Your task to perform on an android device: toggle pop-ups in chrome Image 0: 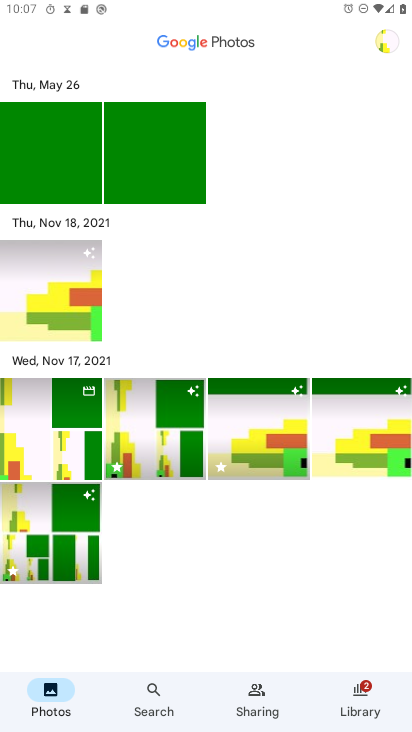
Step 0: press home button
Your task to perform on an android device: toggle pop-ups in chrome Image 1: 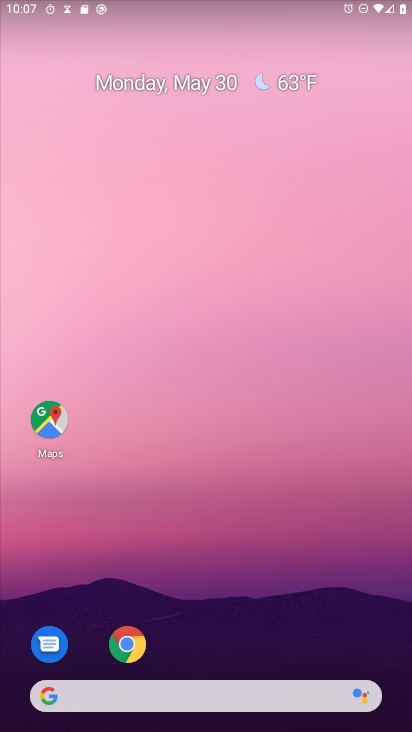
Step 1: click (127, 640)
Your task to perform on an android device: toggle pop-ups in chrome Image 2: 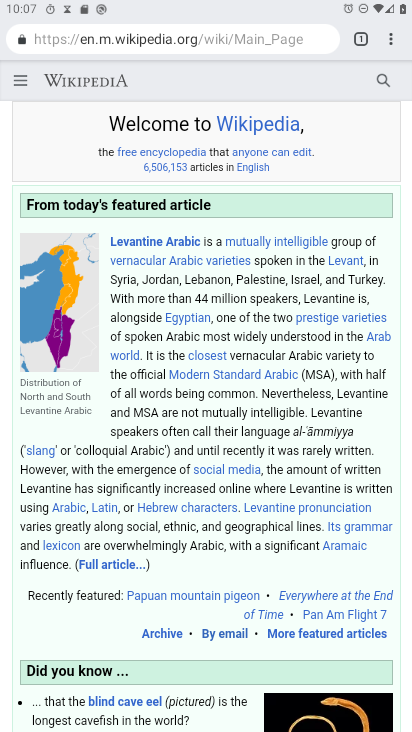
Step 2: click (381, 40)
Your task to perform on an android device: toggle pop-ups in chrome Image 3: 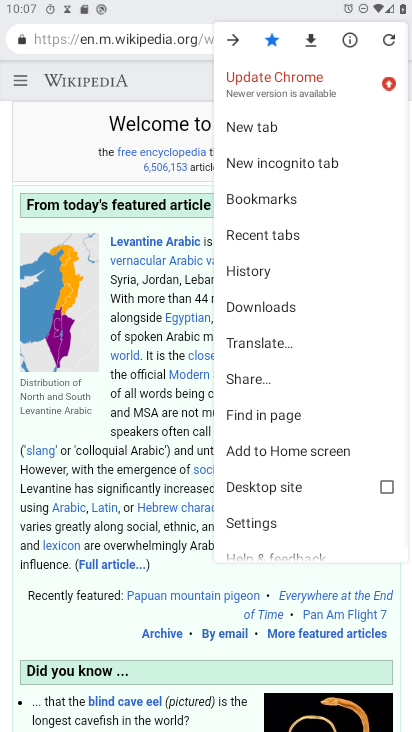
Step 3: click (277, 517)
Your task to perform on an android device: toggle pop-ups in chrome Image 4: 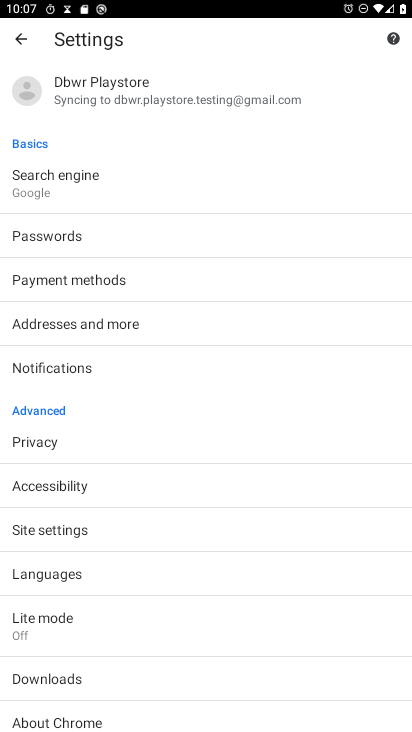
Step 4: click (89, 532)
Your task to perform on an android device: toggle pop-ups in chrome Image 5: 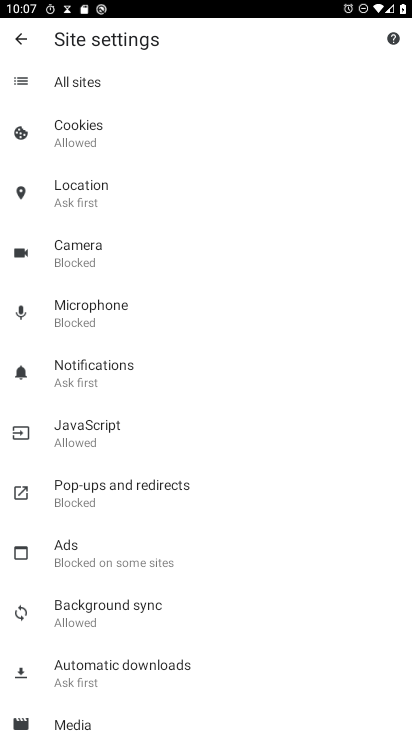
Step 5: click (96, 500)
Your task to perform on an android device: toggle pop-ups in chrome Image 6: 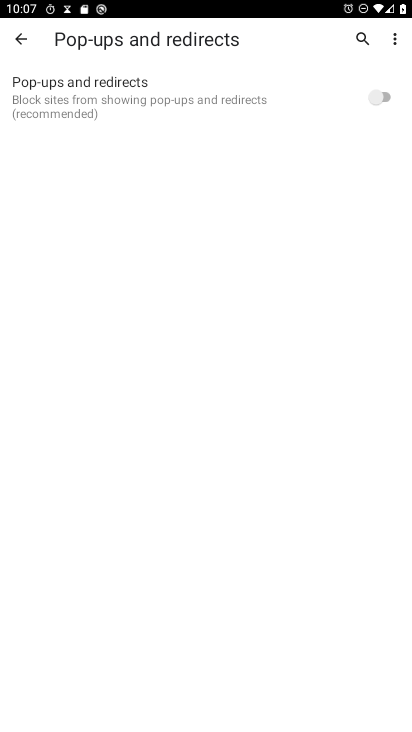
Step 6: click (390, 97)
Your task to perform on an android device: toggle pop-ups in chrome Image 7: 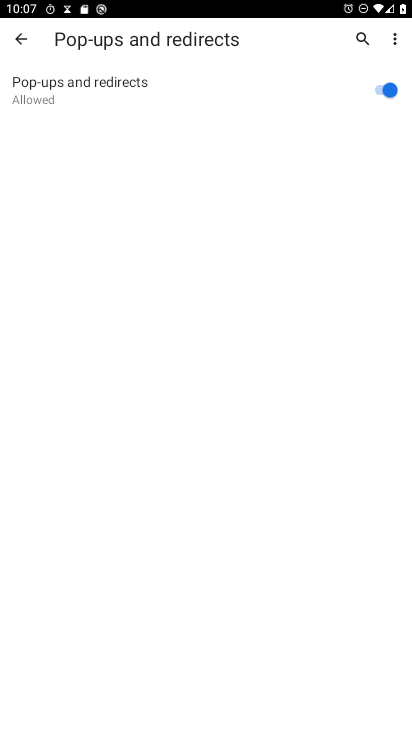
Step 7: task complete